Your task to perform on an android device: change notification settings in the gmail app Image 0: 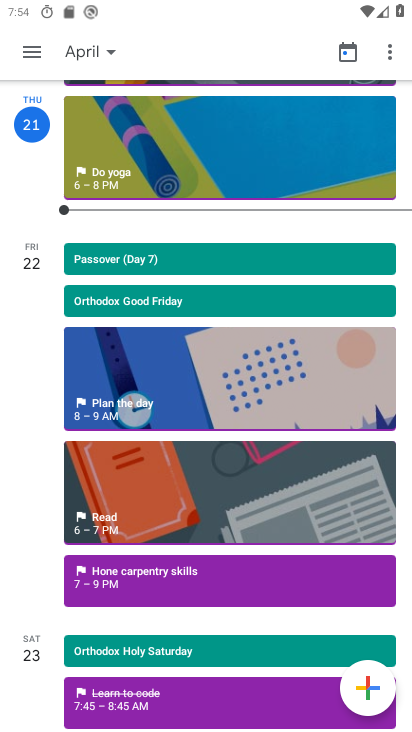
Step 0: press home button
Your task to perform on an android device: change notification settings in the gmail app Image 1: 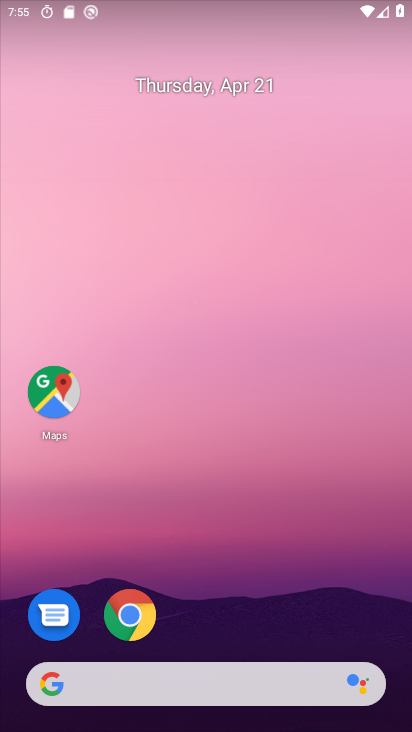
Step 1: drag from (157, 686) to (268, 190)
Your task to perform on an android device: change notification settings in the gmail app Image 2: 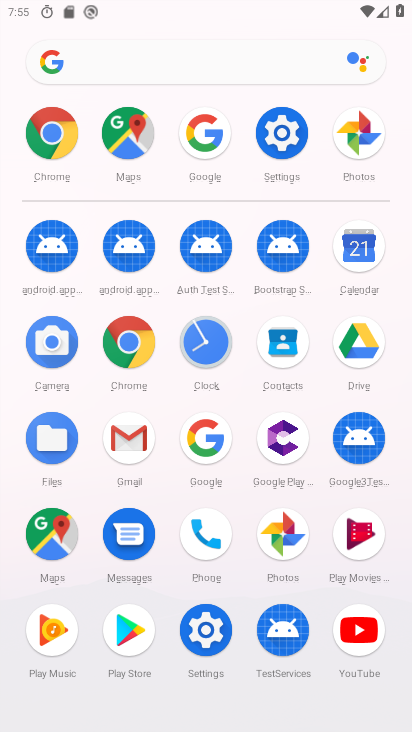
Step 2: click (131, 450)
Your task to perform on an android device: change notification settings in the gmail app Image 3: 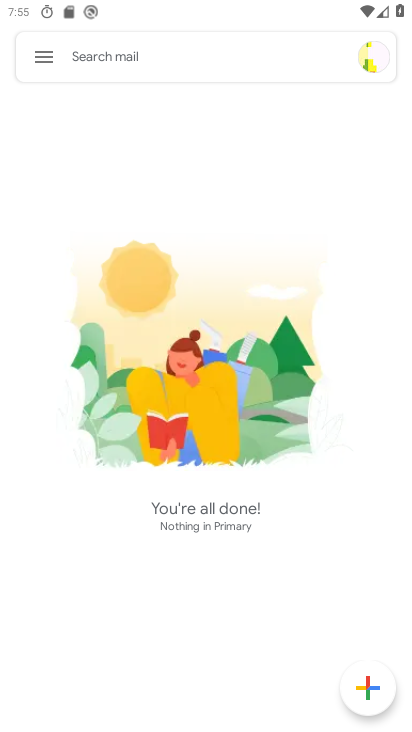
Step 3: click (49, 58)
Your task to perform on an android device: change notification settings in the gmail app Image 4: 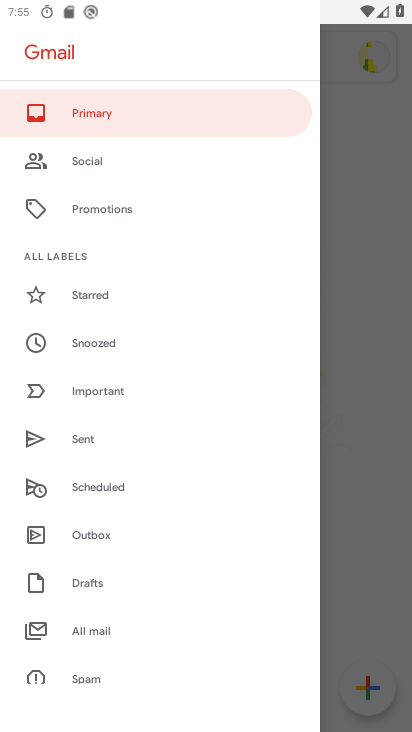
Step 4: drag from (188, 423) to (217, 197)
Your task to perform on an android device: change notification settings in the gmail app Image 5: 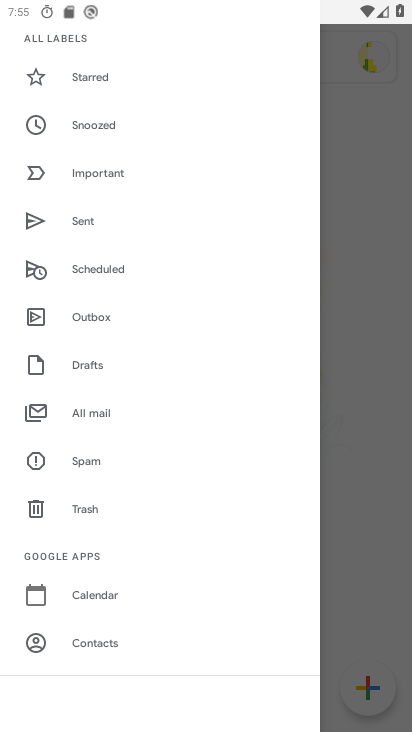
Step 5: drag from (143, 555) to (224, 266)
Your task to perform on an android device: change notification settings in the gmail app Image 6: 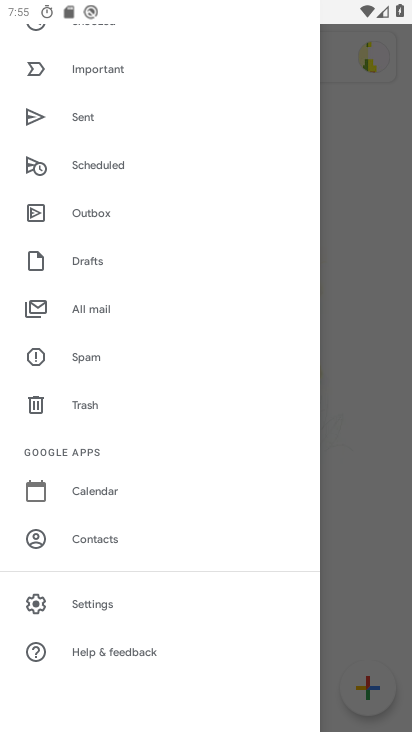
Step 6: click (91, 608)
Your task to perform on an android device: change notification settings in the gmail app Image 7: 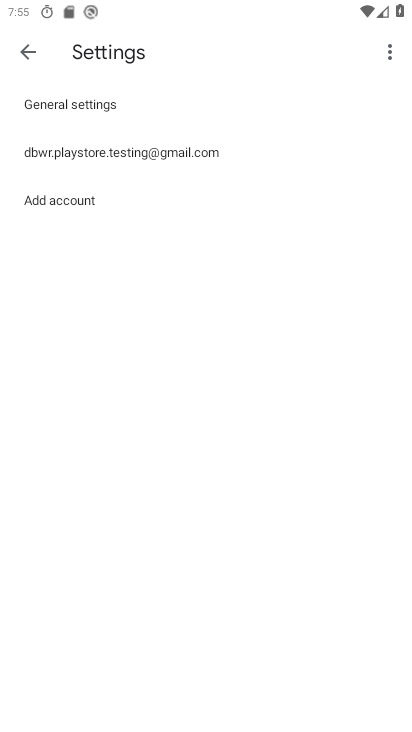
Step 7: click (161, 151)
Your task to perform on an android device: change notification settings in the gmail app Image 8: 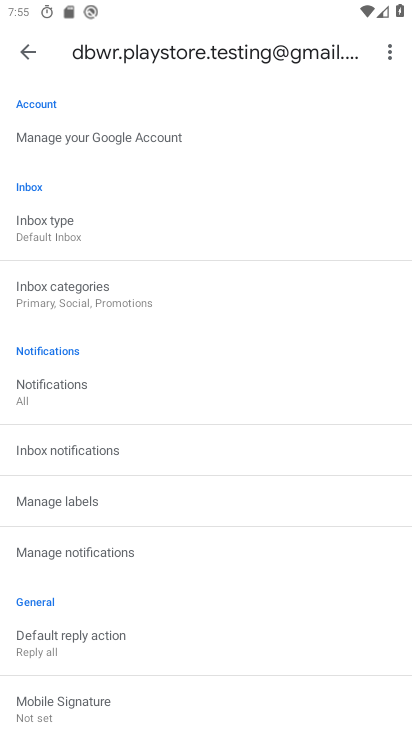
Step 8: click (53, 384)
Your task to perform on an android device: change notification settings in the gmail app Image 9: 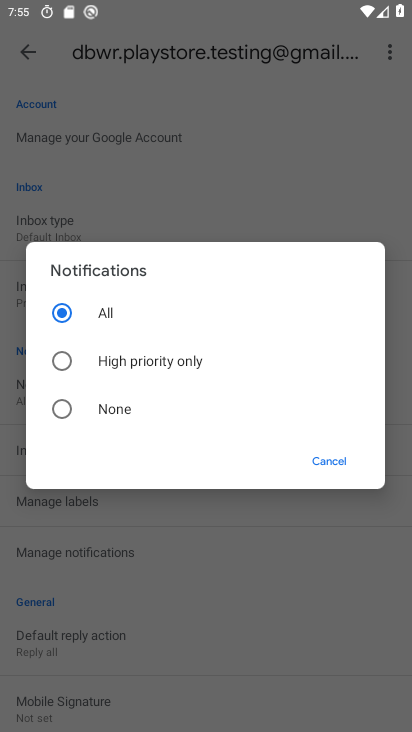
Step 9: click (60, 407)
Your task to perform on an android device: change notification settings in the gmail app Image 10: 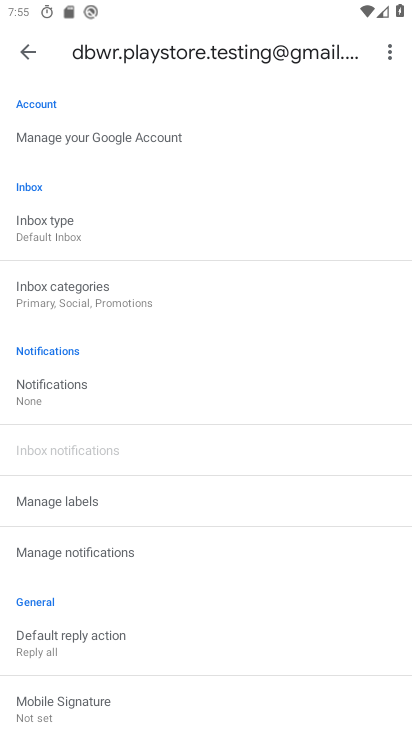
Step 10: task complete